Your task to perform on an android device: empty trash in google photos Image 0: 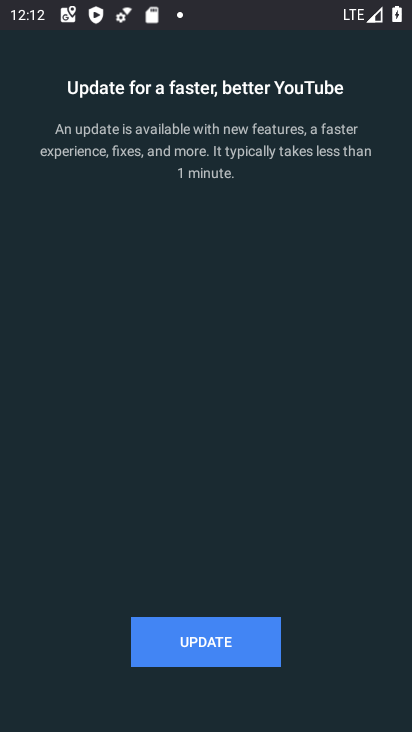
Step 0: press back button
Your task to perform on an android device: empty trash in google photos Image 1: 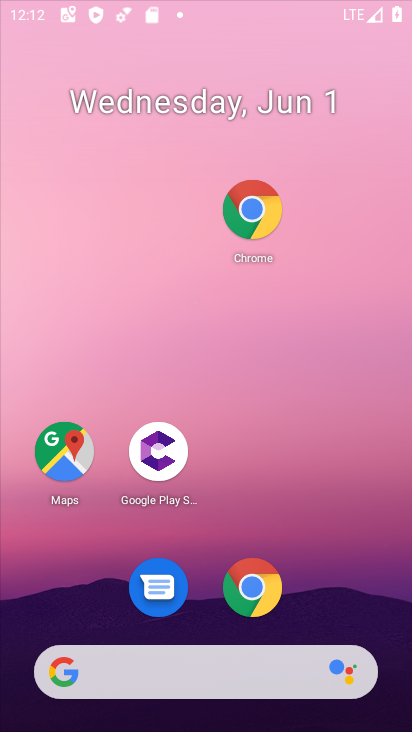
Step 1: press back button
Your task to perform on an android device: empty trash in google photos Image 2: 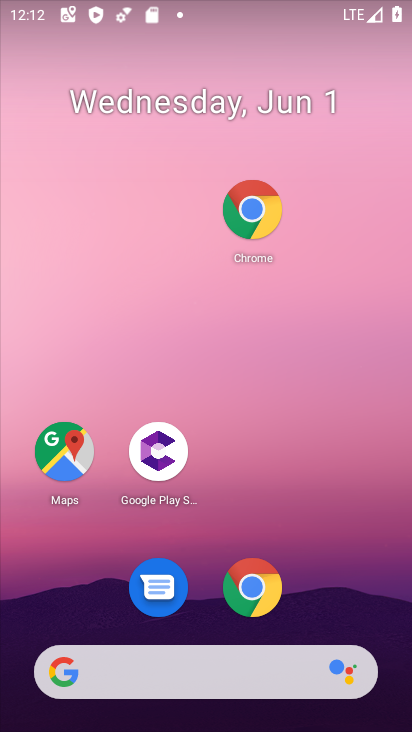
Step 2: drag from (325, 521) to (409, 106)
Your task to perform on an android device: empty trash in google photos Image 3: 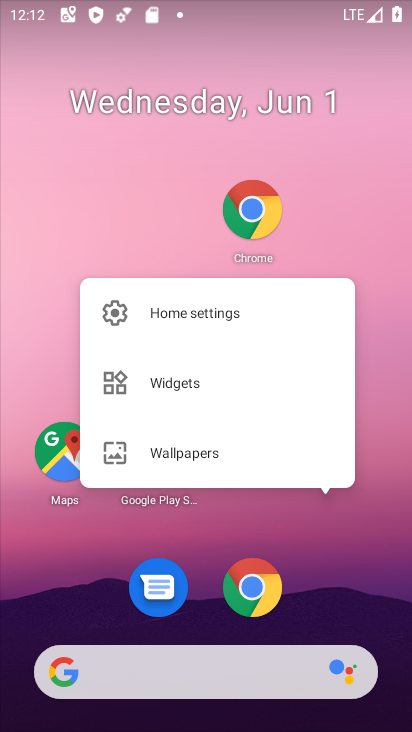
Step 3: drag from (351, 600) to (350, 15)
Your task to perform on an android device: empty trash in google photos Image 4: 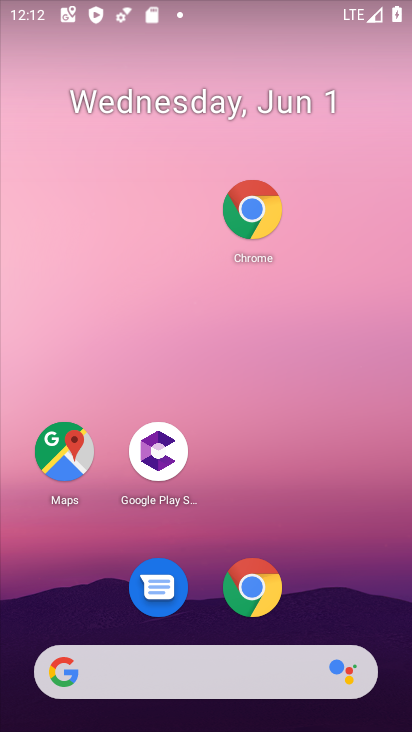
Step 4: drag from (371, 635) to (357, 99)
Your task to perform on an android device: empty trash in google photos Image 5: 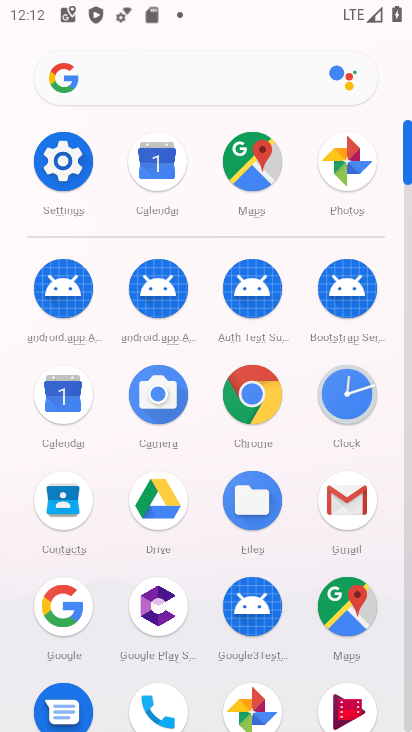
Step 5: click (345, 173)
Your task to perform on an android device: empty trash in google photos Image 6: 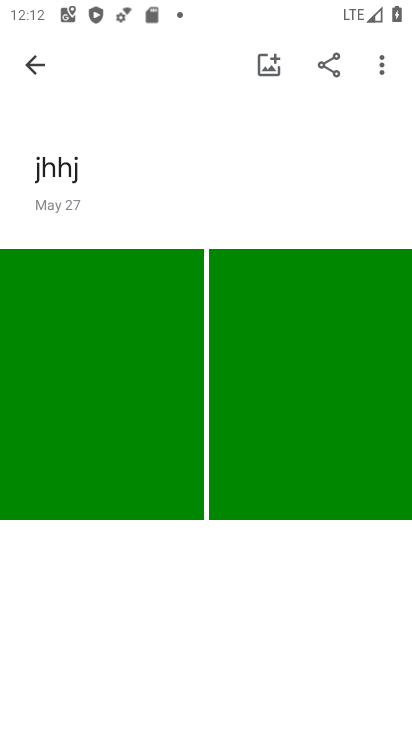
Step 6: click (40, 63)
Your task to perform on an android device: empty trash in google photos Image 7: 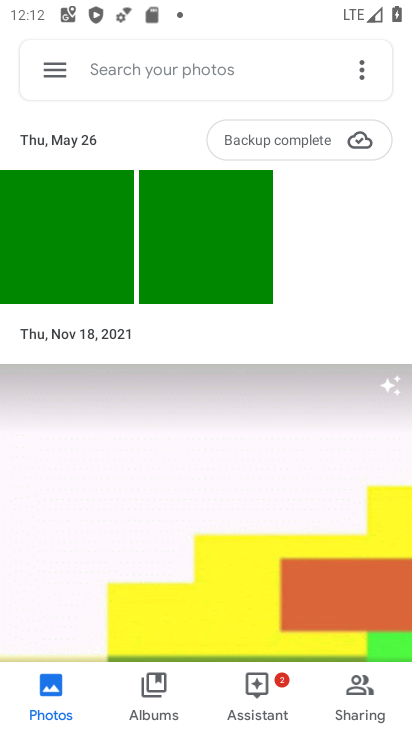
Step 7: click (40, 63)
Your task to perform on an android device: empty trash in google photos Image 8: 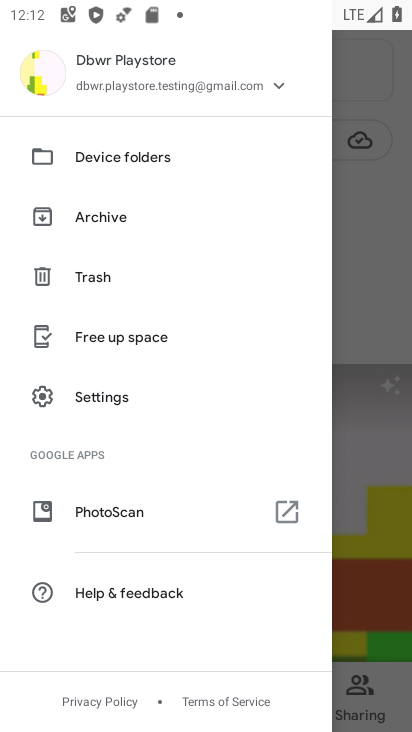
Step 8: click (111, 274)
Your task to perform on an android device: empty trash in google photos Image 9: 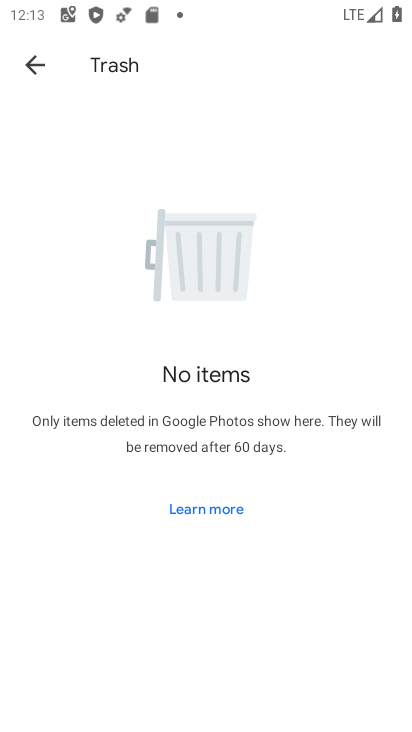
Step 9: task complete